Your task to perform on an android device: turn notification dots off Image 0: 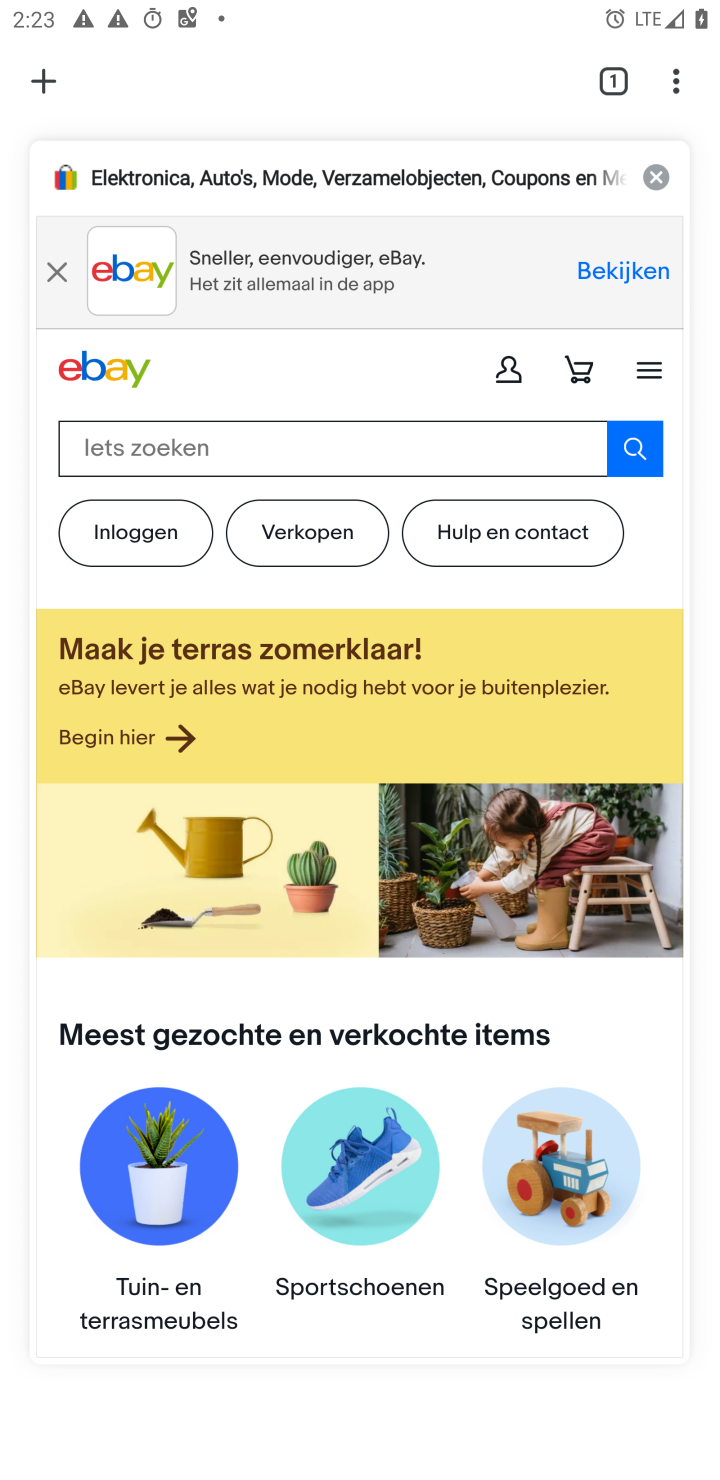
Step 0: press home button
Your task to perform on an android device: turn notification dots off Image 1: 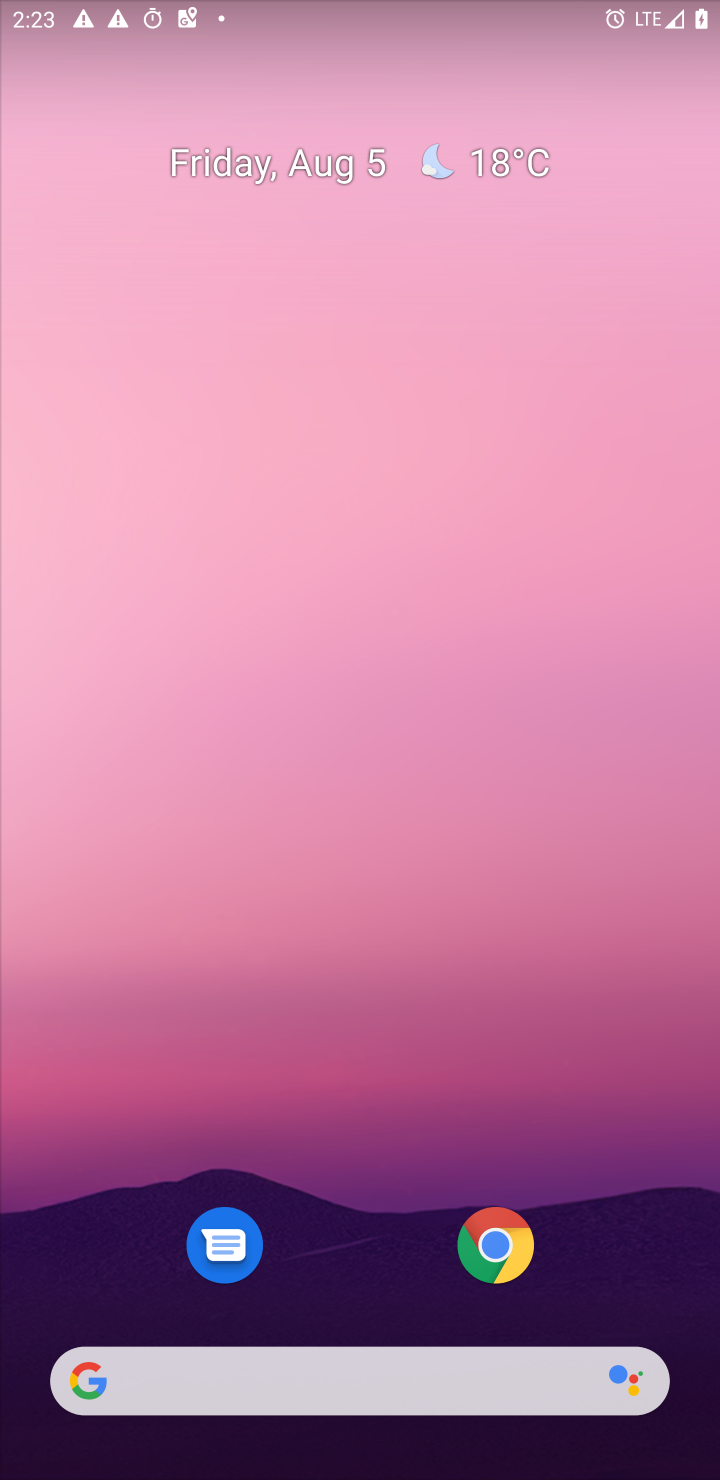
Step 1: drag from (340, 1305) to (498, 412)
Your task to perform on an android device: turn notification dots off Image 2: 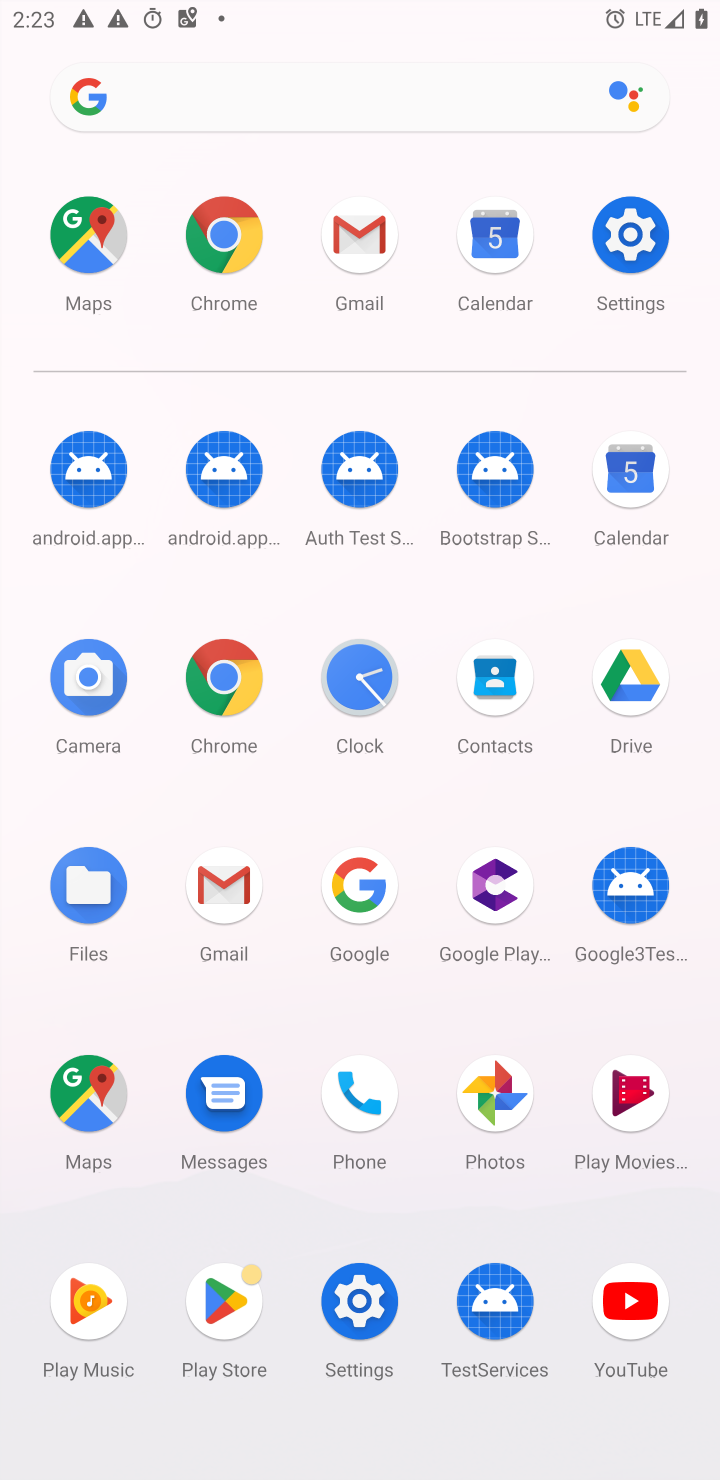
Step 2: click (630, 231)
Your task to perform on an android device: turn notification dots off Image 3: 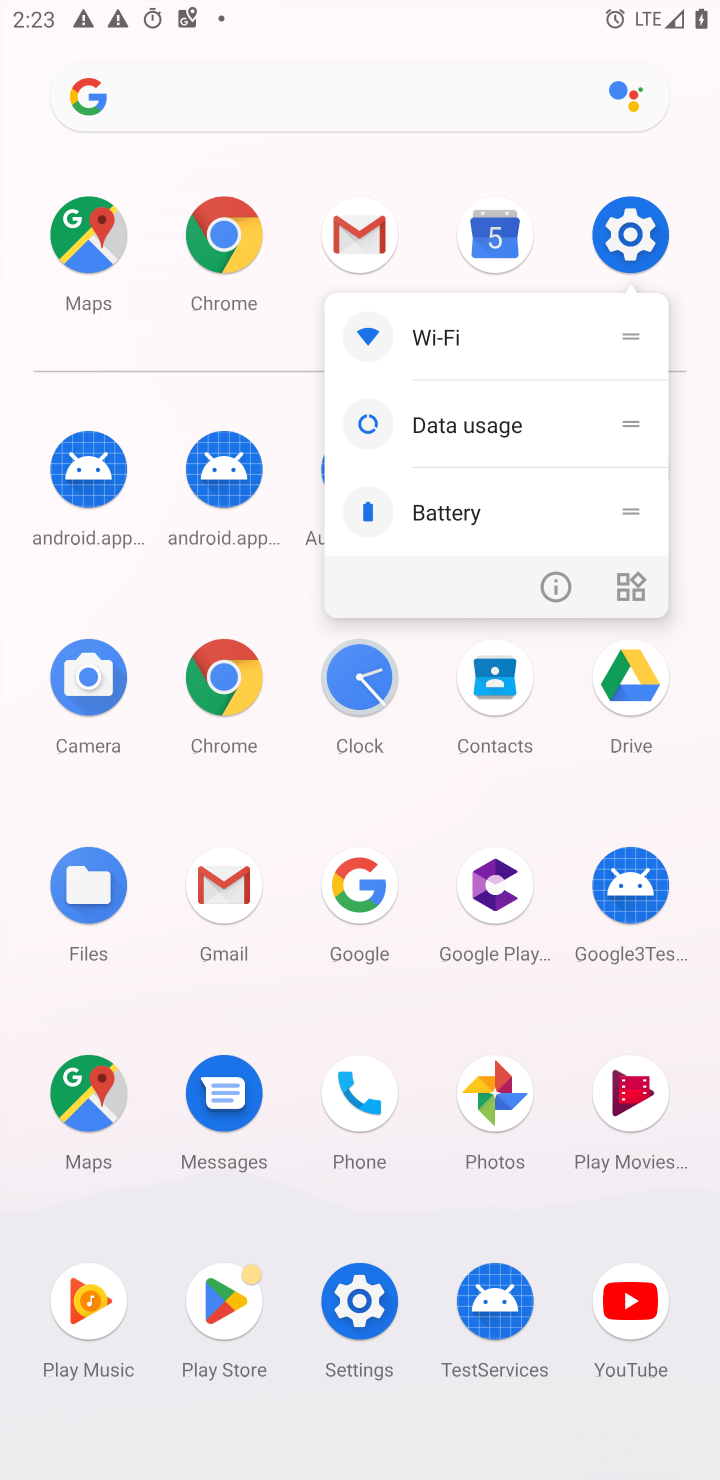
Step 3: click (635, 223)
Your task to perform on an android device: turn notification dots off Image 4: 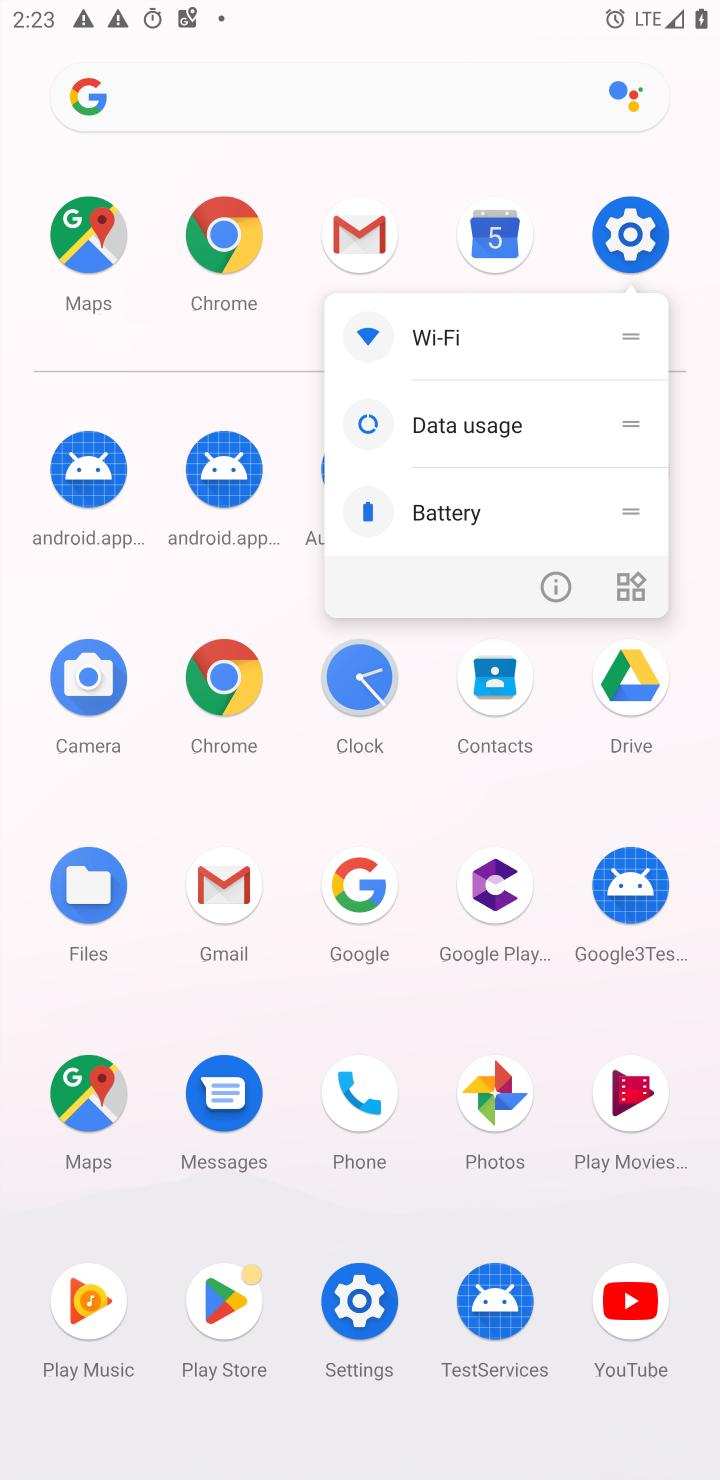
Step 4: click (626, 227)
Your task to perform on an android device: turn notification dots off Image 5: 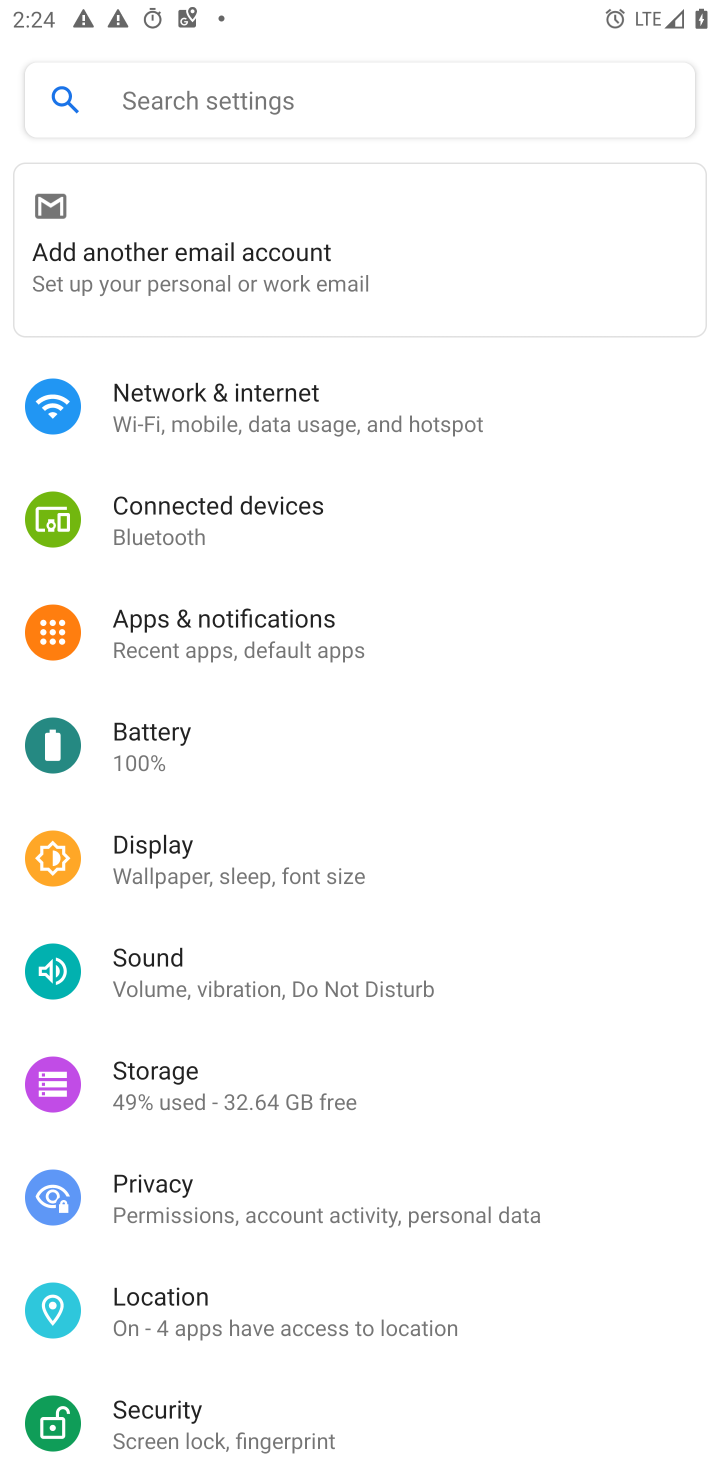
Step 5: click (205, 641)
Your task to perform on an android device: turn notification dots off Image 6: 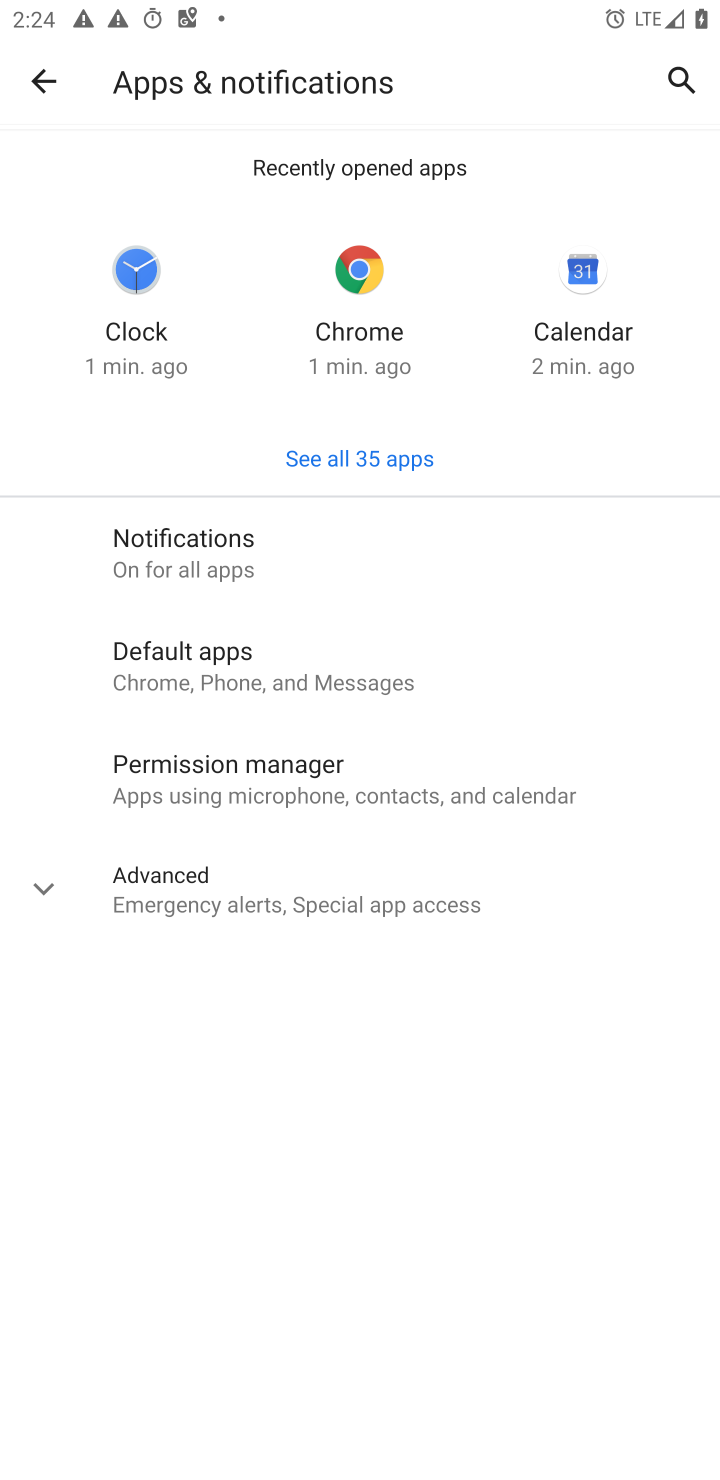
Step 6: click (173, 547)
Your task to perform on an android device: turn notification dots off Image 7: 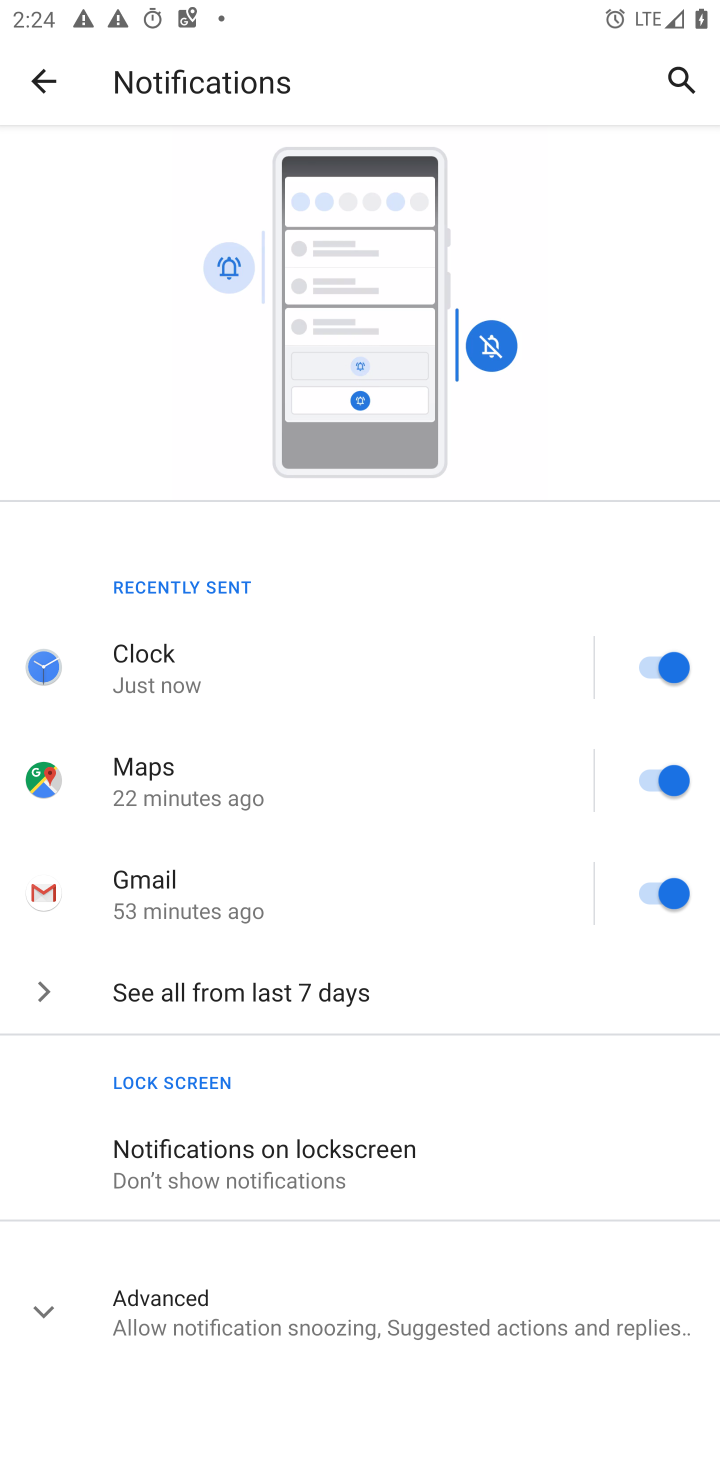
Step 7: click (151, 1312)
Your task to perform on an android device: turn notification dots off Image 8: 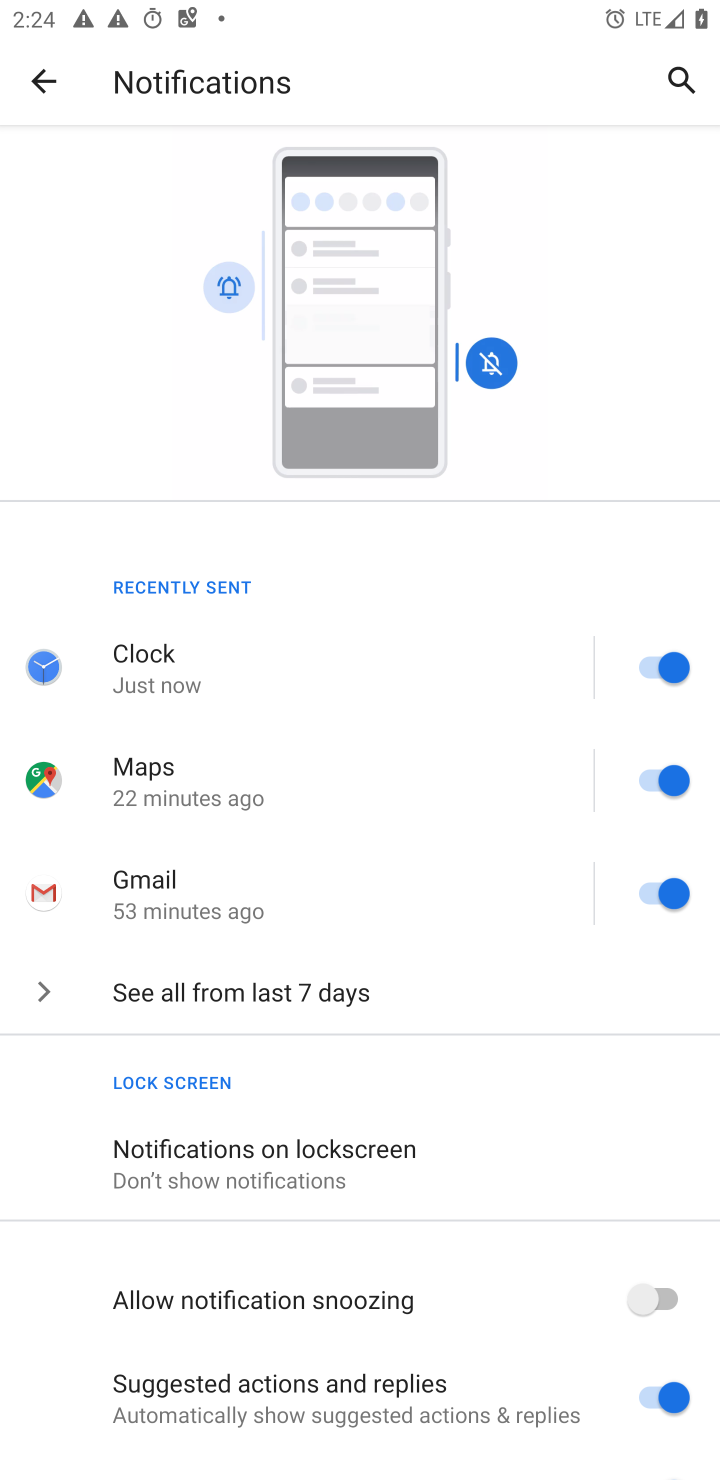
Step 8: drag from (493, 940) to (518, 482)
Your task to perform on an android device: turn notification dots off Image 9: 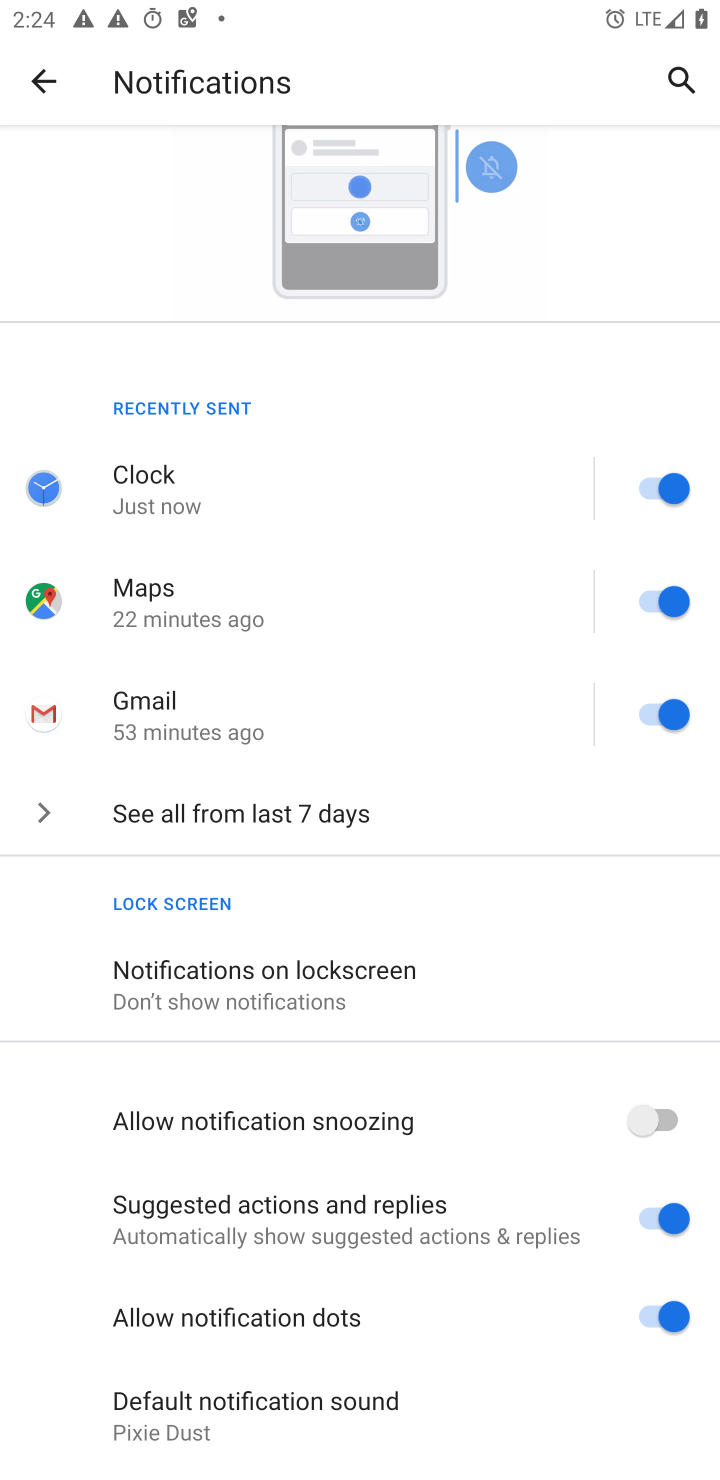
Step 9: click (667, 1320)
Your task to perform on an android device: turn notification dots off Image 10: 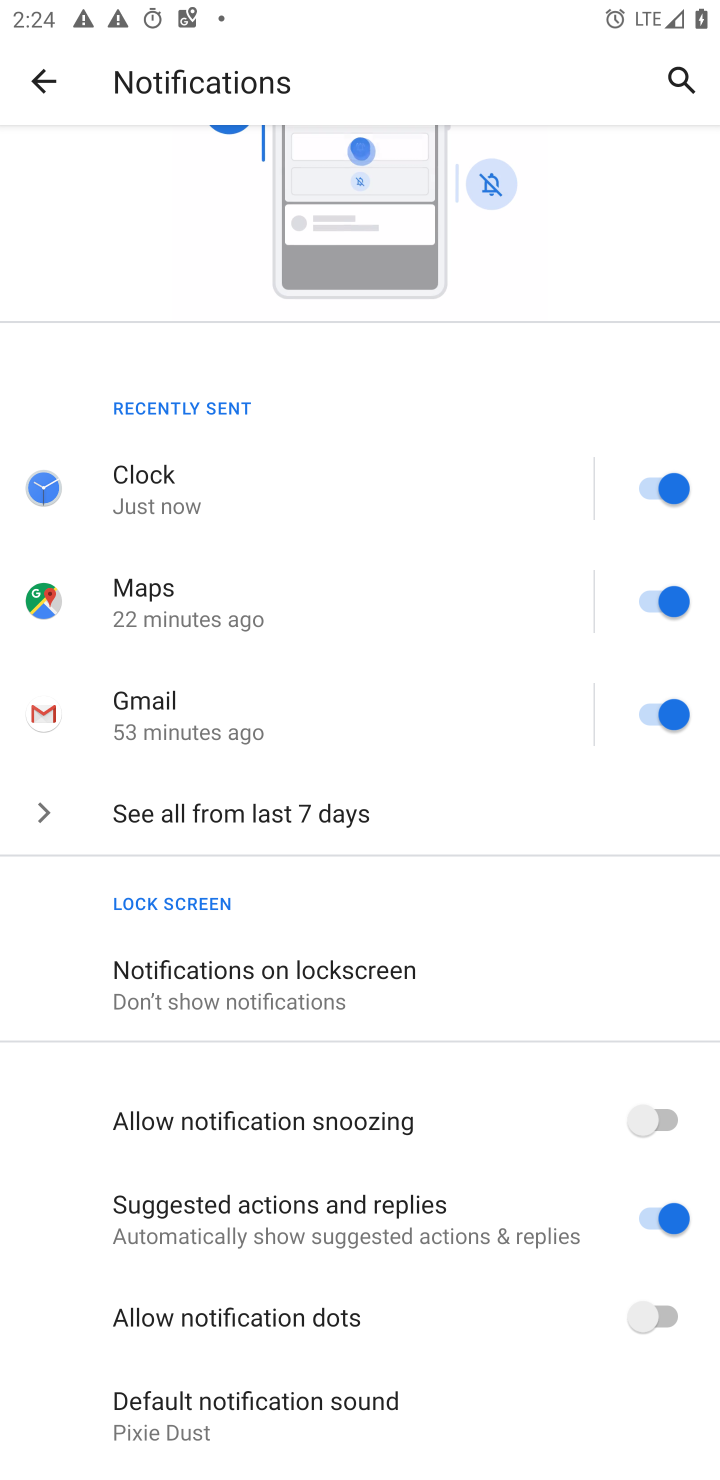
Step 10: task complete